Your task to perform on an android device: check out phone information Image 0: 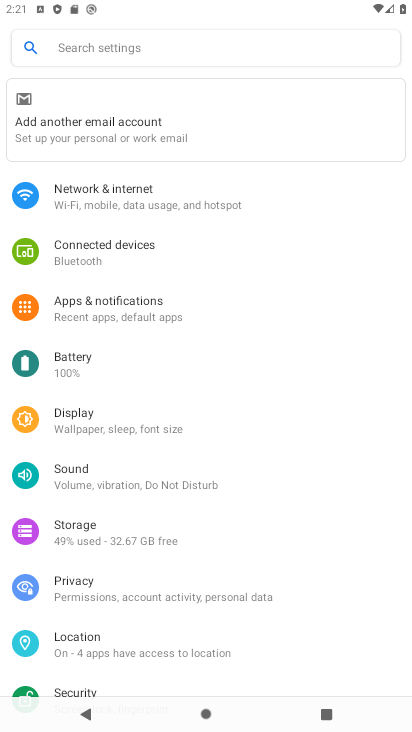
Step 0: drag from (138, 625) to (160, 420)
Your task to perform on an android device: check out phone information Image 1: 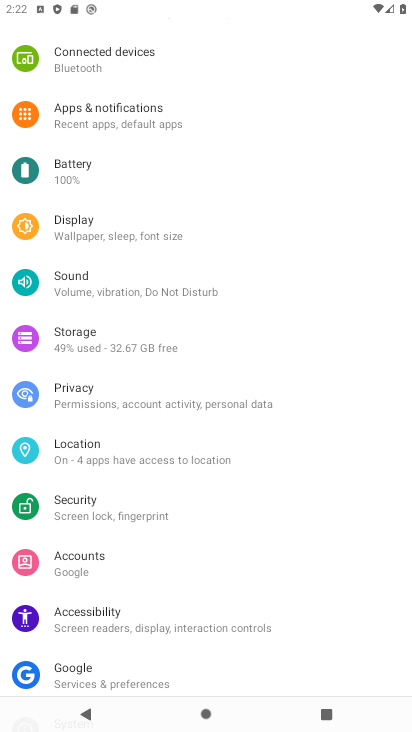
Step 1: drag from (178, 604) to (176, 418)
Your task to perform on an android device: check out phone information Image 2: 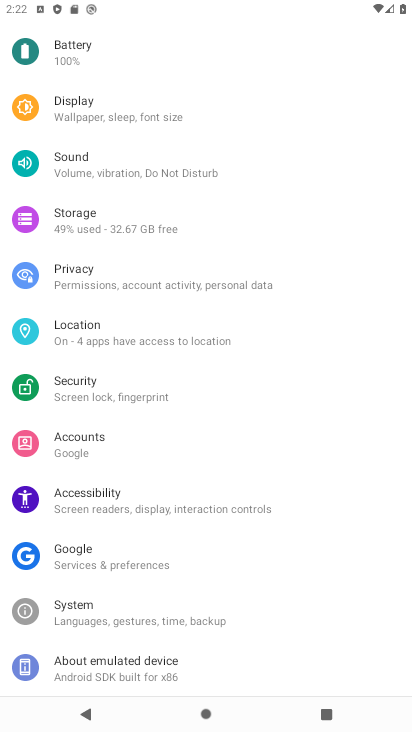
Step 2: click (122, 664)
Your task to perform on an android device: check out phone information Image 3: 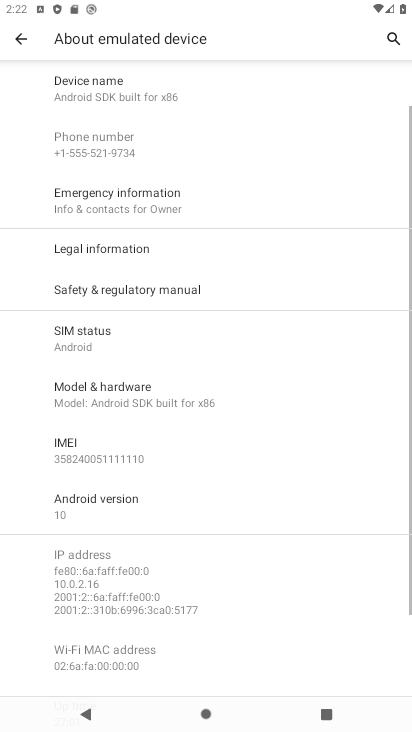
Step 3: task complete